Your task to perform on an android device: Go to Maps Image 0: 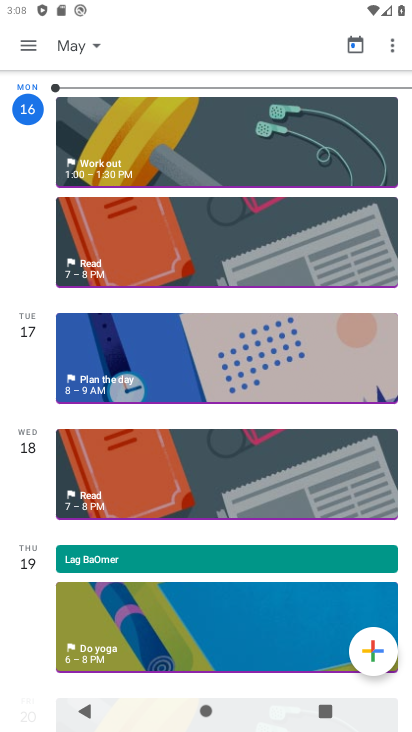
Step 0: press home button
Your task to perform on an android device: Go to Maps Image 1: 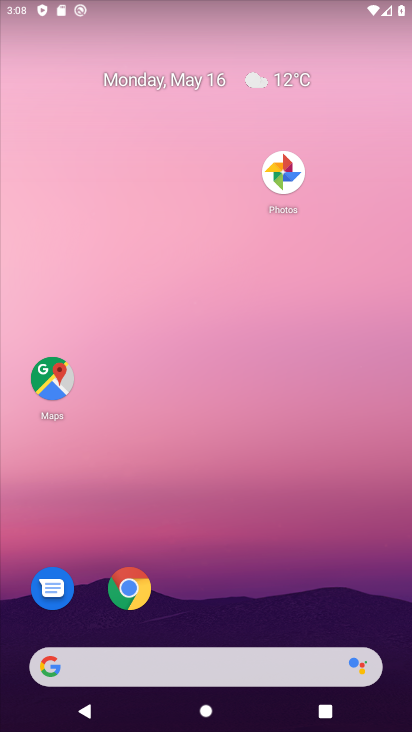
Step 1: click (54, 386)
Your task to perform on an android device: Go to Maps Image 2: 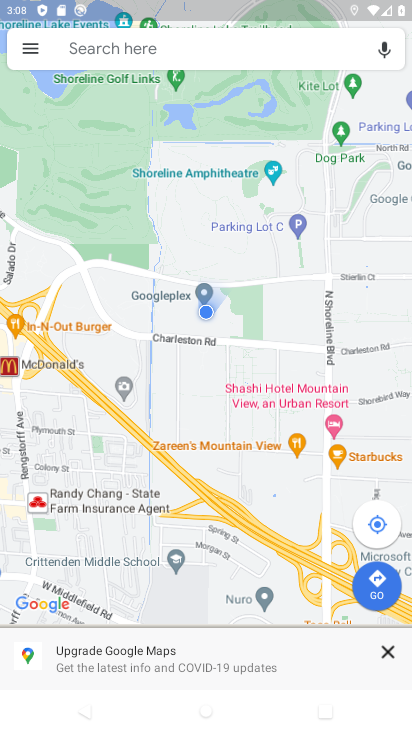
Step 2: task complete